Your task to perform on an android device: toggle airplane mode Image 0: 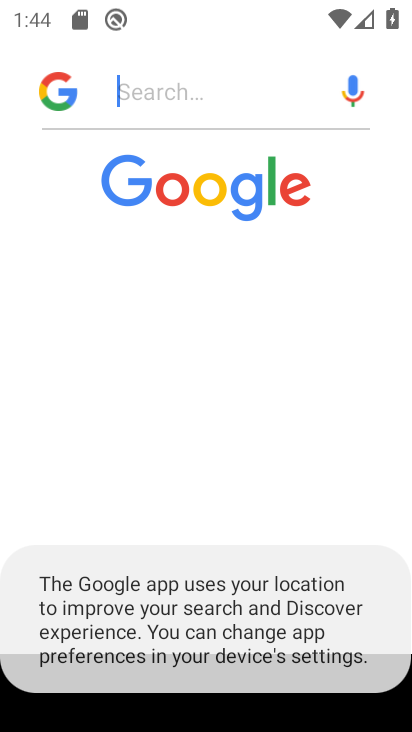
Step 0: drag from (274, 341) to (273, 577)
Your task to perform on an android device: toggle airplane mode Image 1: 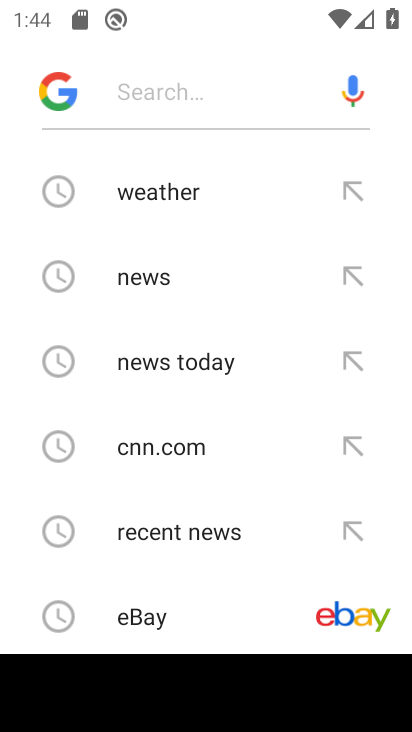
Step 1: drag from (237, 85) to (220, 469)
Your task to perform on an android device: toggle airplane mode Image 2: 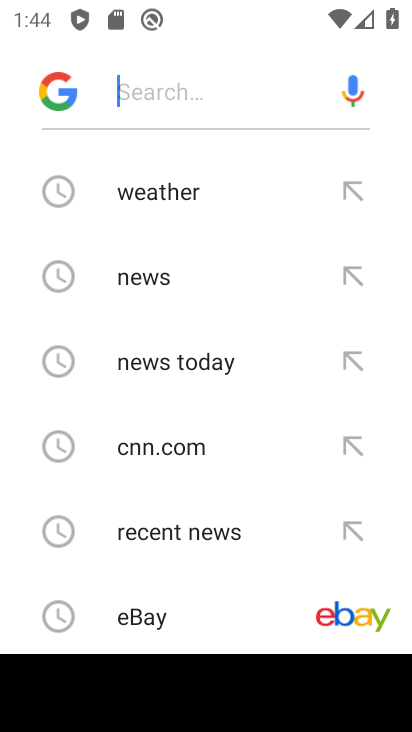
Step 2: drag from (194, 61) to (248, 443)
Your task to perform on an android device: toggle airplane mode Image 3: 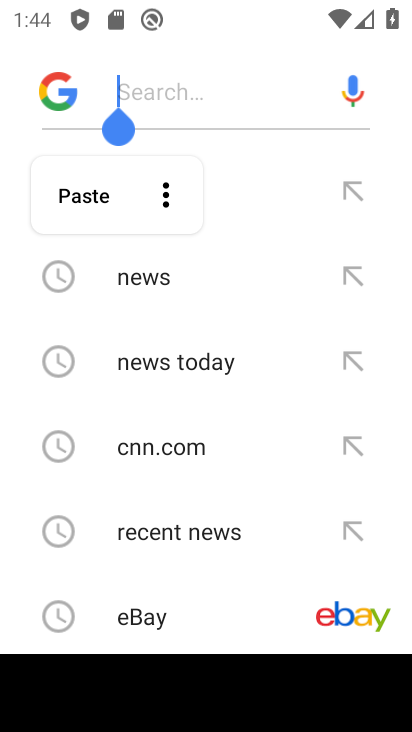
Step 3: press home button
Your task to perform on an android device: toggle airplane mode Image 4: 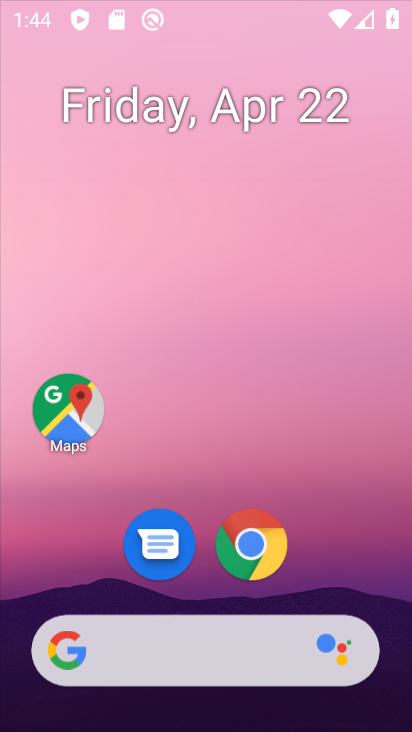
Step 4: drag from (216, 40) to (305, 503)
Your task to perform on an android device: toggle airplane mode Image 5: 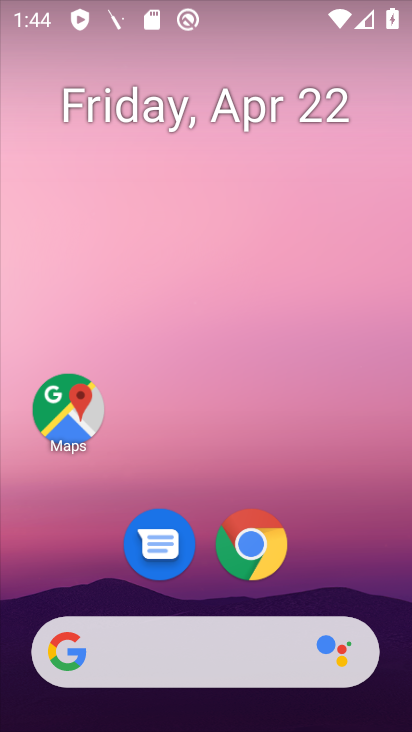
Step 5: drag from (264, 10) to (317, 509)
Your task to perform on an android device: toggle airplane mode Image 6: 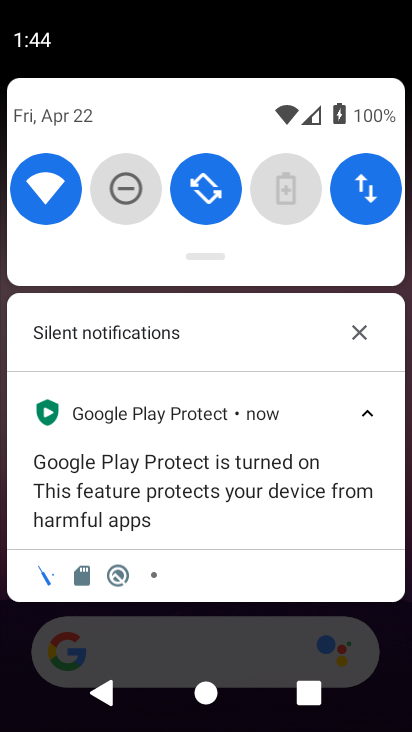
Step 6: drag from (322, 436) to (297, 584)
Your task to perform on an android device: toggle airplane mode Image 7: 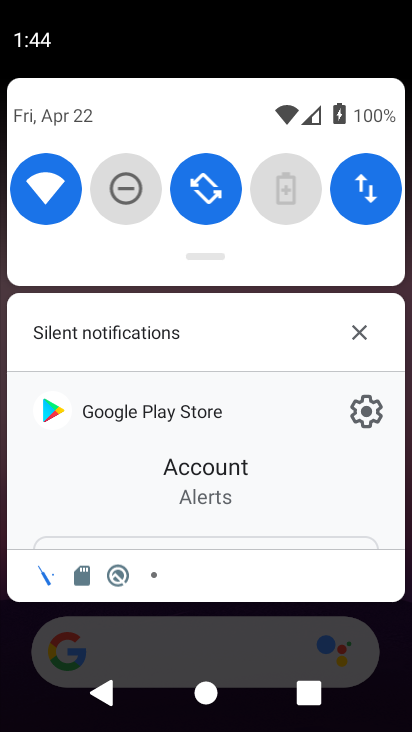
Step 7: drag from (331, 246) to (314, 601)
Your task to perform on an android device: toggle airplane mode Image 8: 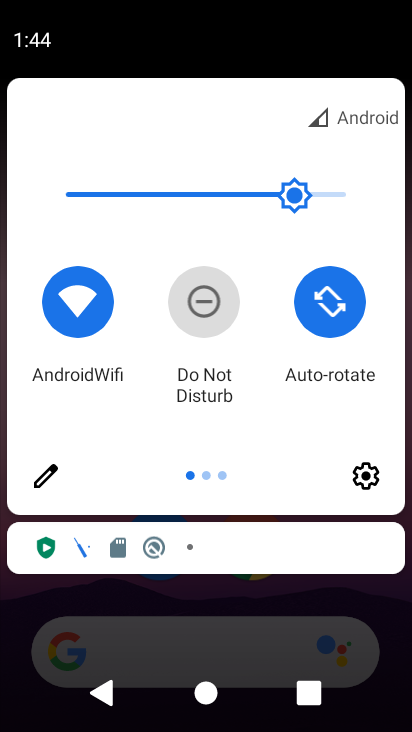
Step 8: drag from (365, 370) to (82, 361)
Your task to perform on an android device: toggle airplane mode Image 9: 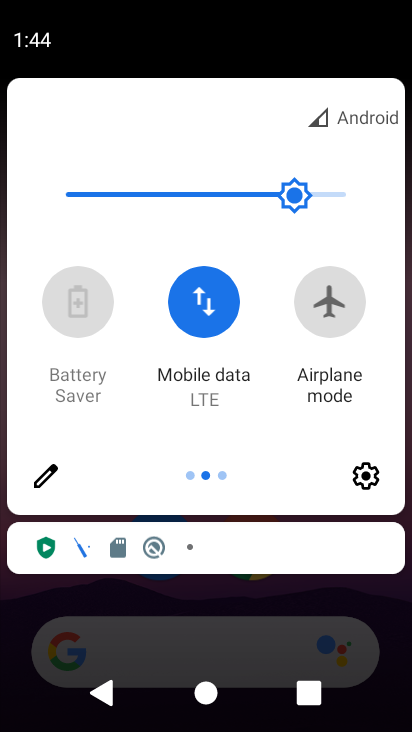
Step 9: click (345, 288)
Your task to perform on an android device: toggle airplane mode Image 10: 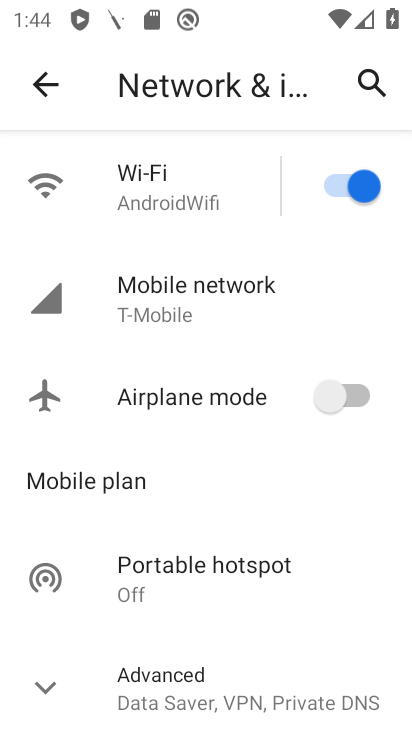
Step 10: click (349, 399)
Your task to perform on an android device: toggle airplane mode Image 11: 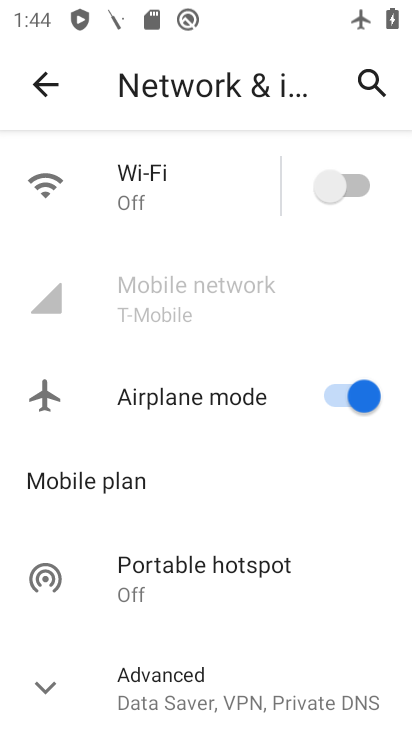
Step 11: task complete